Your task to perform on an android device: turn off data saver in the chrome app Image 0: 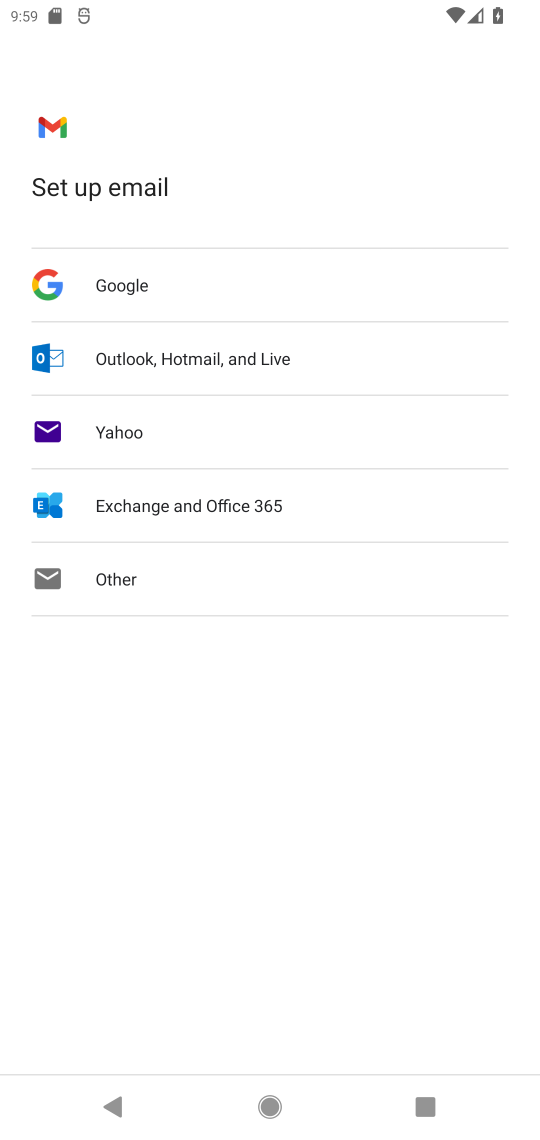
Step 0: drag from (238, 13) to (172, 861)
Your task to perform on an android device: turn off data saver in the chrome app Image 1: 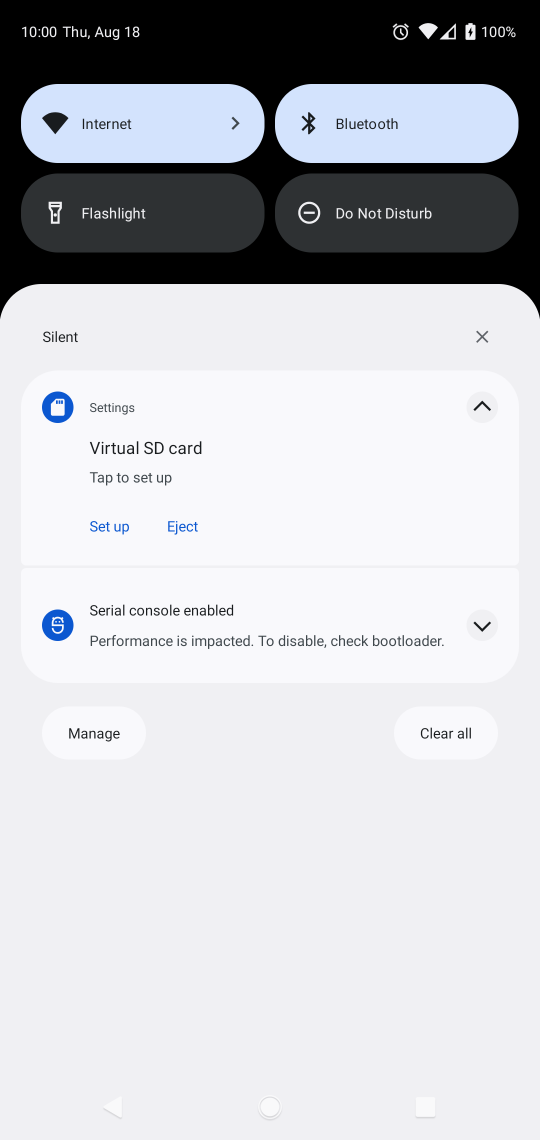
Step 1: click (232, 133)
Your task to perform on an android device: turn off data saver in the chrome app Image 2: 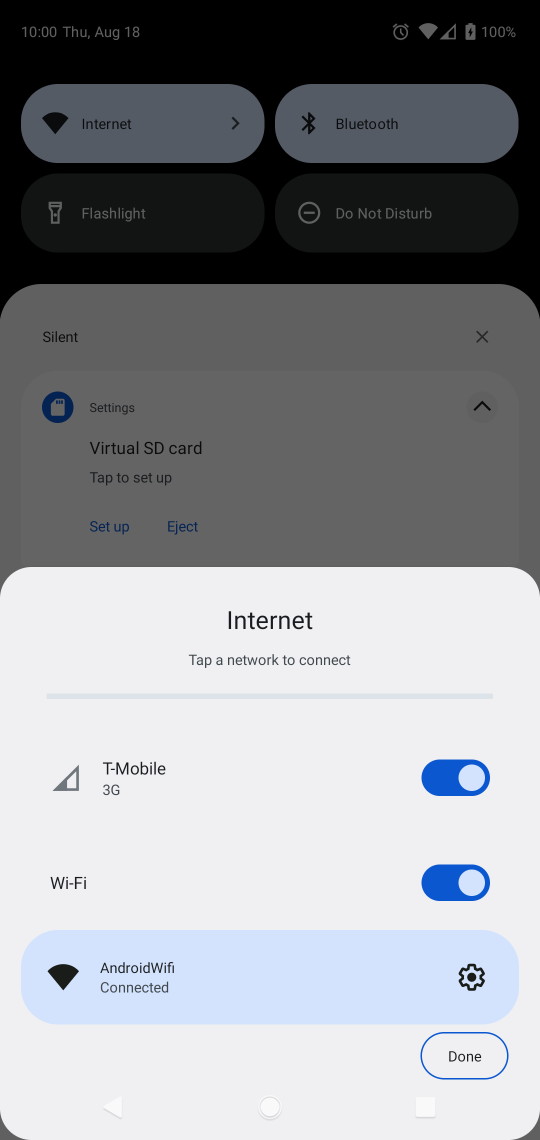
Step 2: click (460, 877)
Your task to perform on an android device: turn off data saver in the chrome app Image 3: 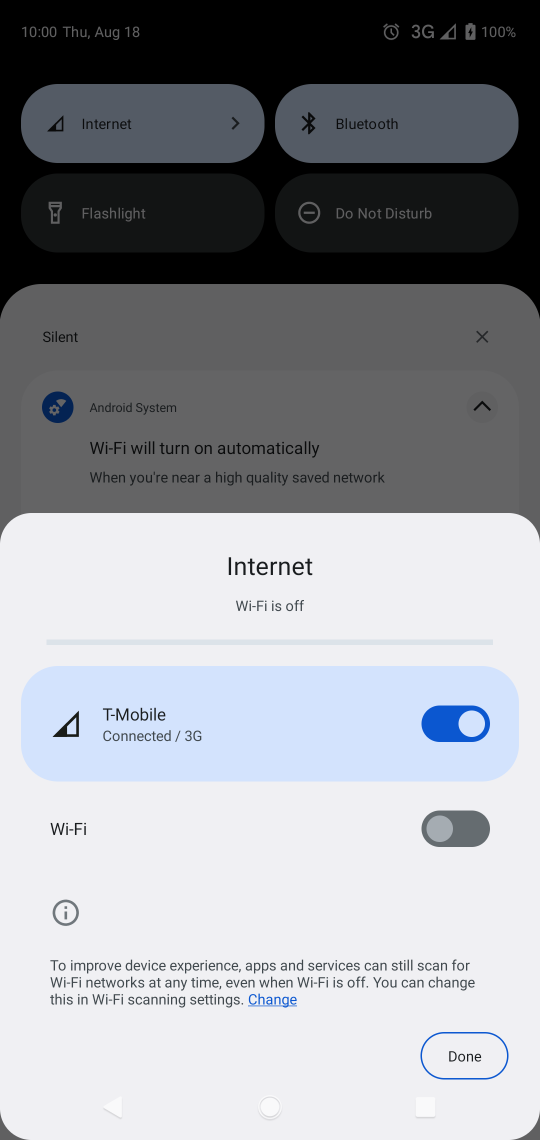
Step 3: task complete